Your task to perform on an android device: Turn on the flashlight Image 0: 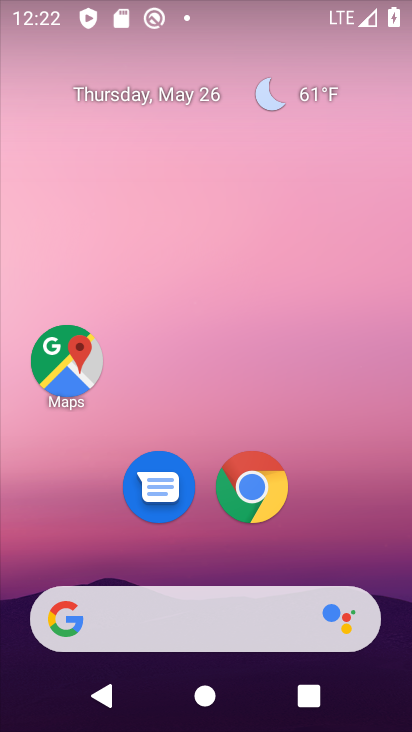
Step 0: drag from (245, 706) to (141, 30)
Your task to perform on an android device: Turn on the flashlight Image 1: 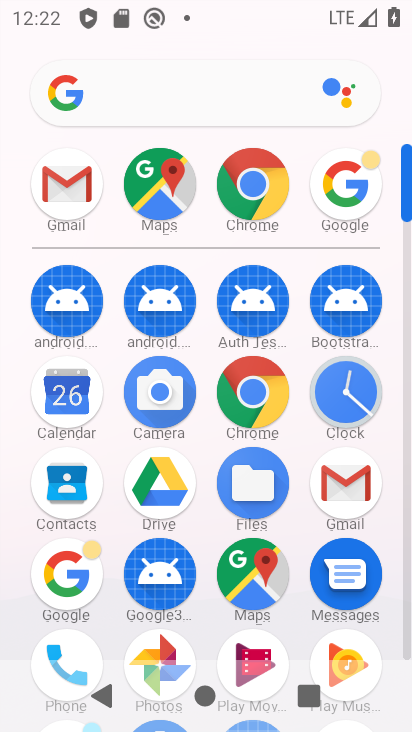
Step 1: task complete